Your task to perform on an android device: Show me recent news Image 0: 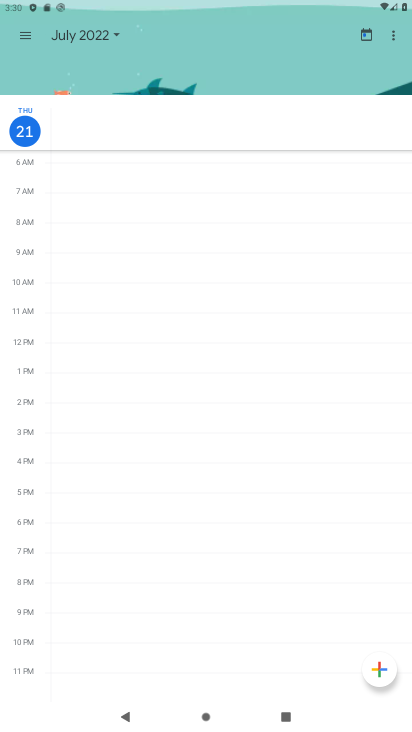
Step 0: press home button
Your task to perform on an android device: Show me recent news Image 1: 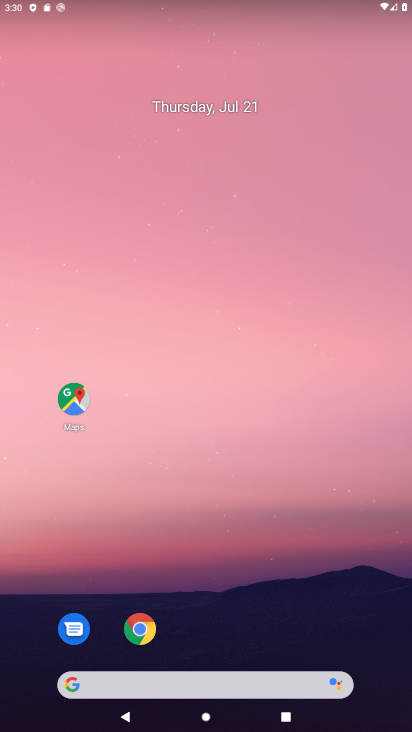
Step 1: task complete